Your task to perform on an android device: change keyboard looks Image 0: 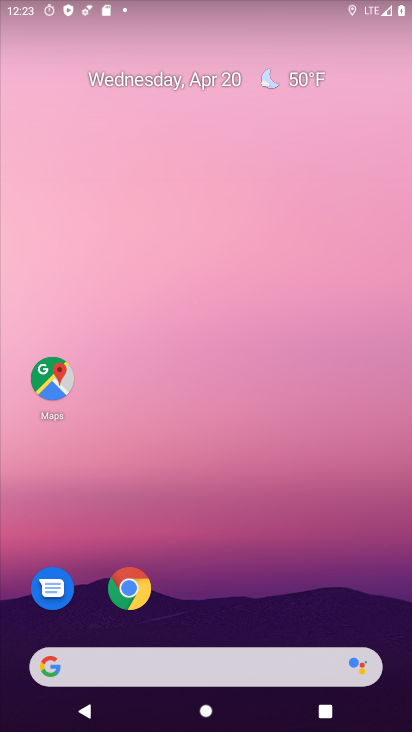
Step 0: drag from (202, 634) to (151, 27)
Your task to perform on an android device: change keyboard looks Image 1: 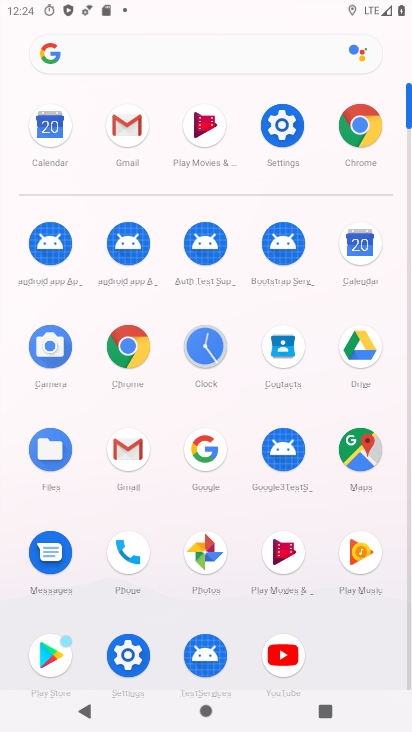
Step 1: click (282, 125)
Your task to perform on an android device: change keyboard looks Image 2: 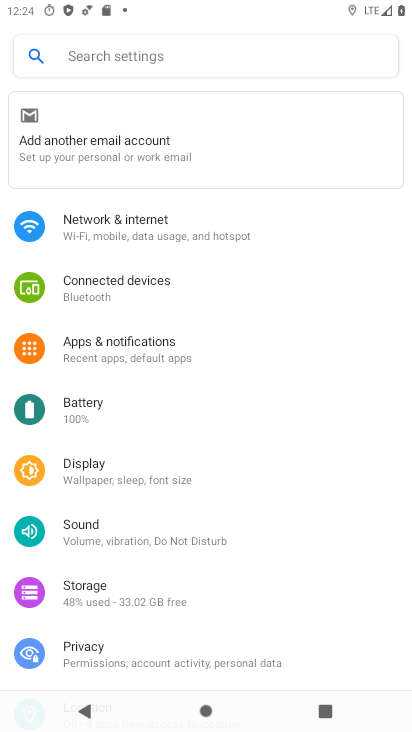
Step 2: drag from (249, 505) to (188, 84)
Your task to perform on an android device: change keyboard looks Image 3: 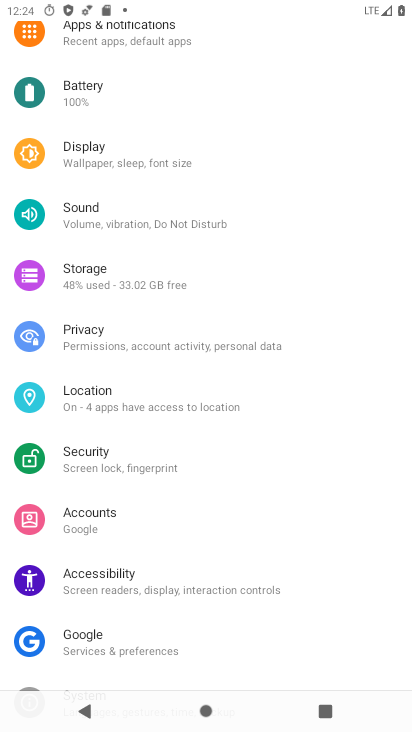
Step 3: drag from (113, 635) to (101, 217)
Your task to perform on an android device: change keyboard looks Image 4: 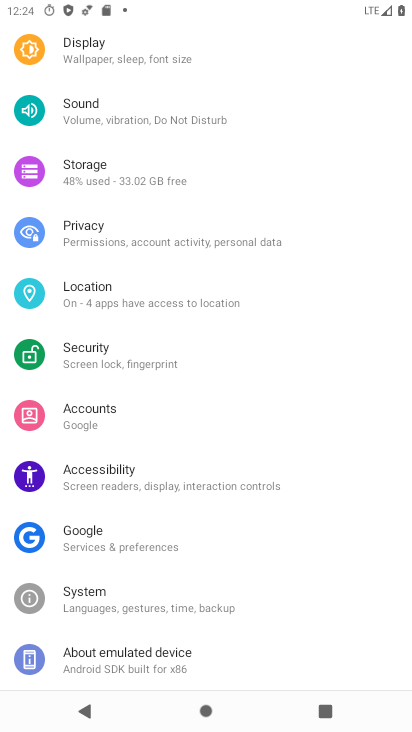
Step 4: click (141, 600)
Your task to perform on an android device: change keyboard looks Image 5: 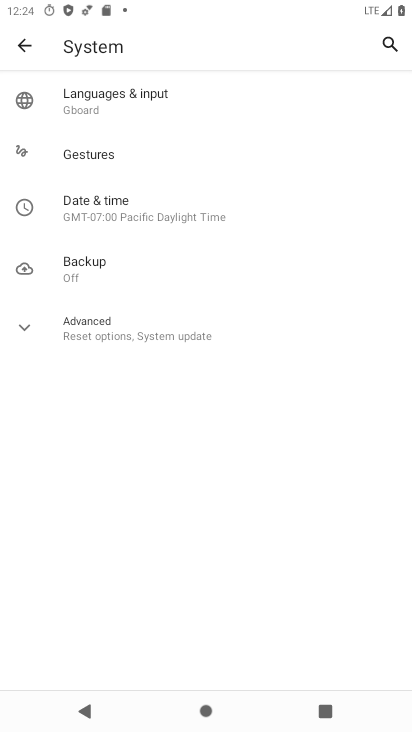
Step 5: click (95, 90)
Your task to perform on an android device: change keyboard looks Image 6: 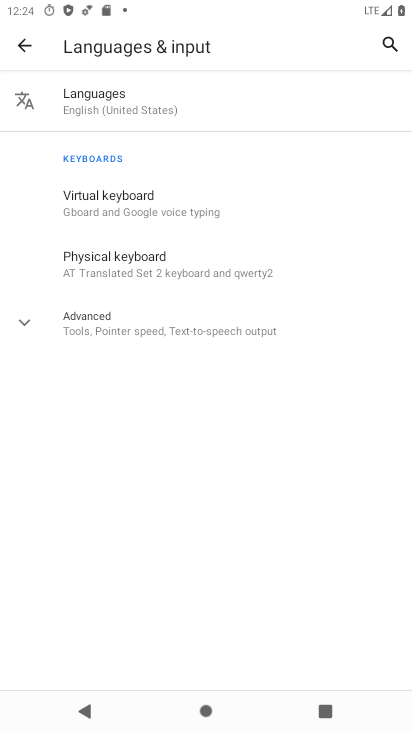
Step 6: click (116, 207)
Your task to perform on an android device: change keyboard looks Image 7: 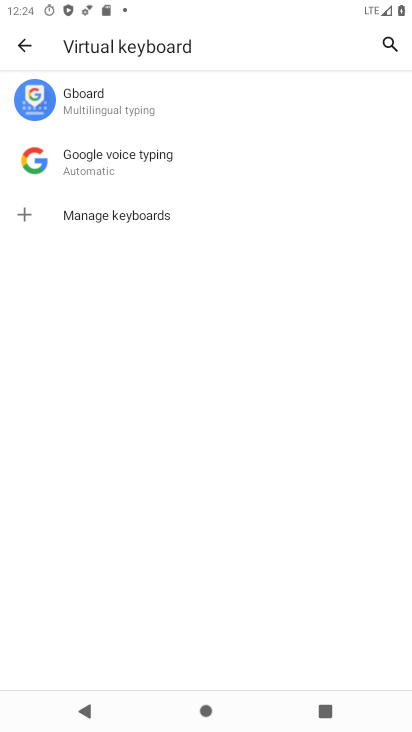
Step 7: click (80, 105)
Your task to perform on an android device: change keyboard looks Image 8: 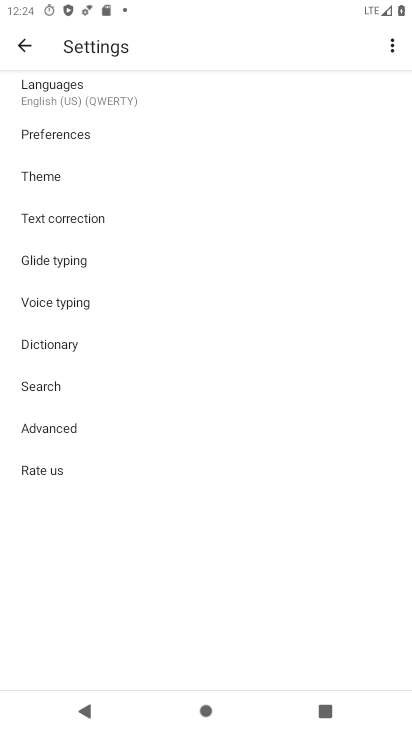
Step 8: click (50, 179)
Your task to perform on an android device: change keyboard looks Image 9: 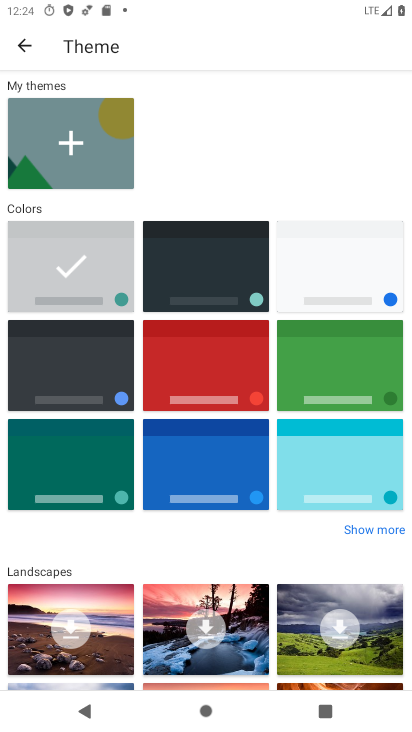
Step 9: click (195, 275)
Your task to perform on an android device: change keyboard looks Image 10: 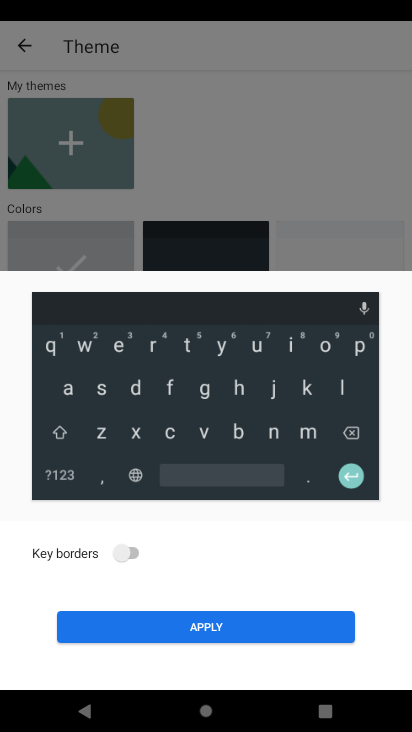
Step 10: click (291, 629)
Your task to perform on an android device: change keyboard looks Image 11: 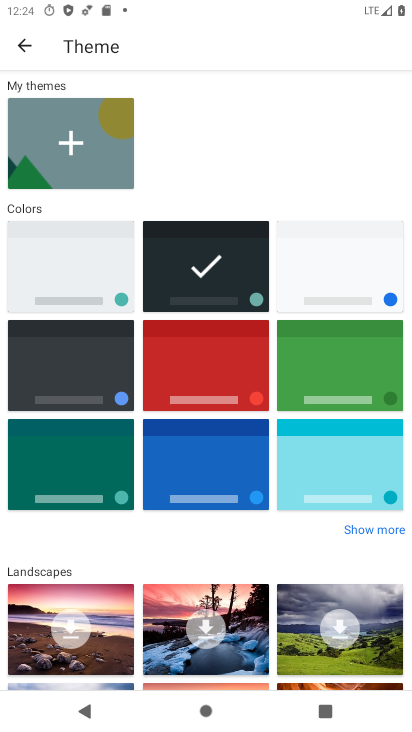
Step 11: task complete